Your task to perform on an android device: open app "Grab" (install if not already installed) and enter user name: "interspersion@gmail.com" and password: "aristocrats" Image 0: 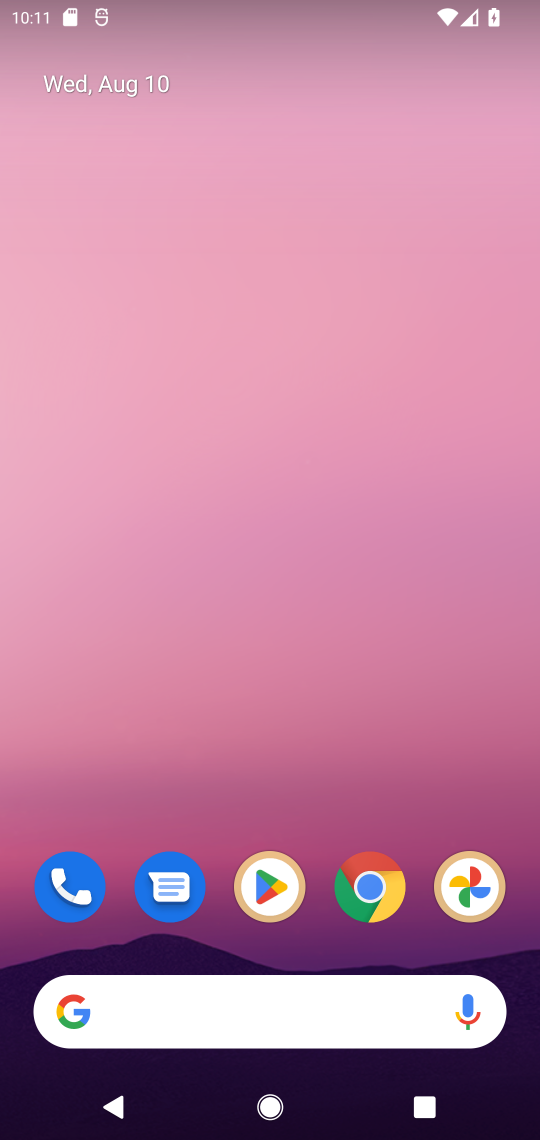
Step 0: click (272, 911)
Your task to perform on an android device: open app "Grab" (install if not already installed) and enter user name: "interspersion@gmail.com" and password: "aristocrats" Image 1: 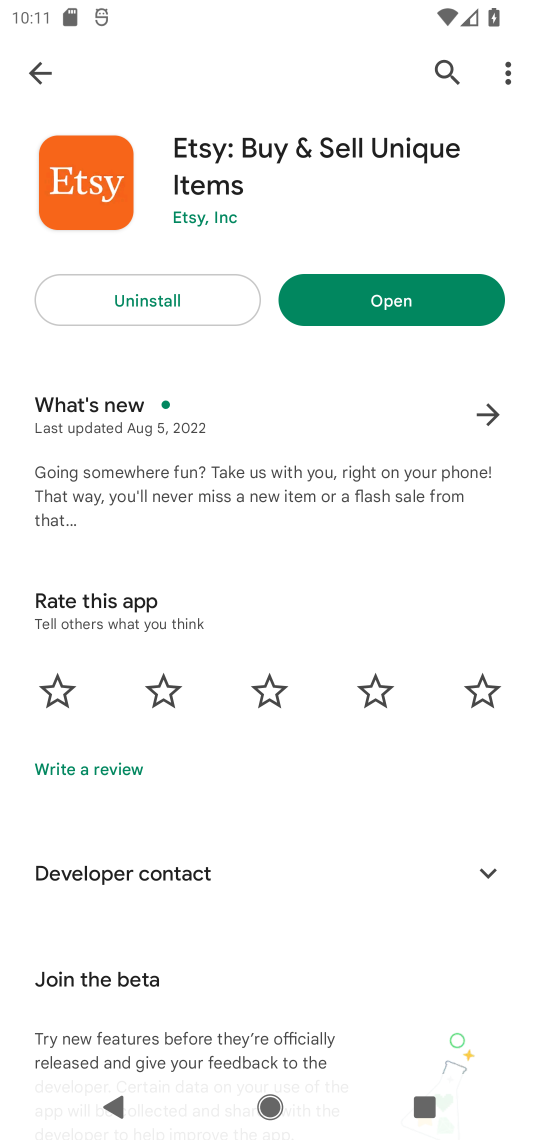
Step 1: click (439, 79)
Your task to perform on an android device: open app "Grab" (install if not already installed) and enter user name: "interspersion@gmail.com" and password: "aristocrats" Image 2: 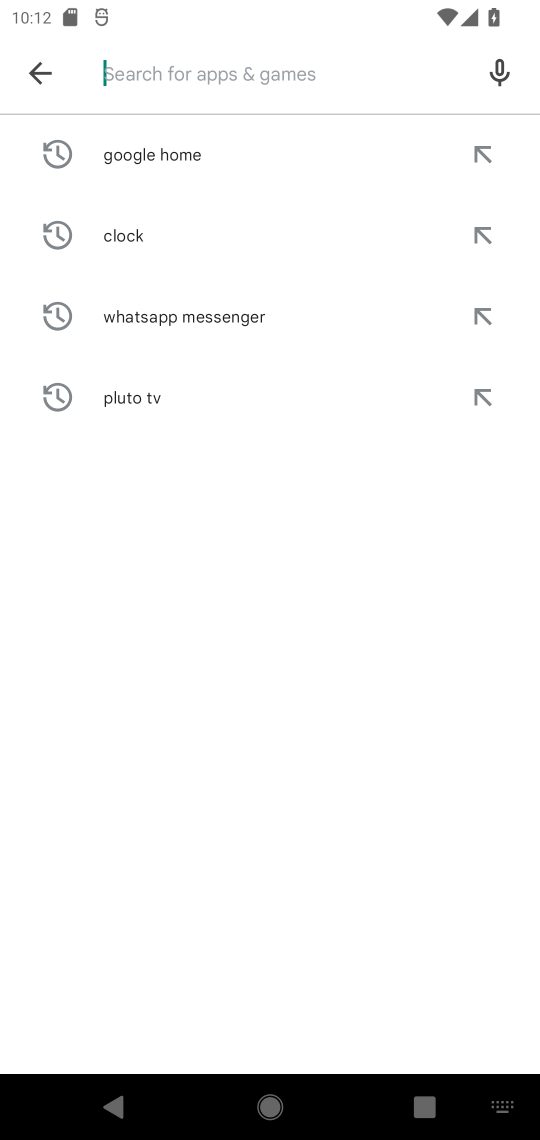
Step 2: type "grab"
Your task to perform on an android device: open app "Grab" (install if not already installed) and enter user name: "interspersion@gmail.com" and password: "aristocrats" Image 3: 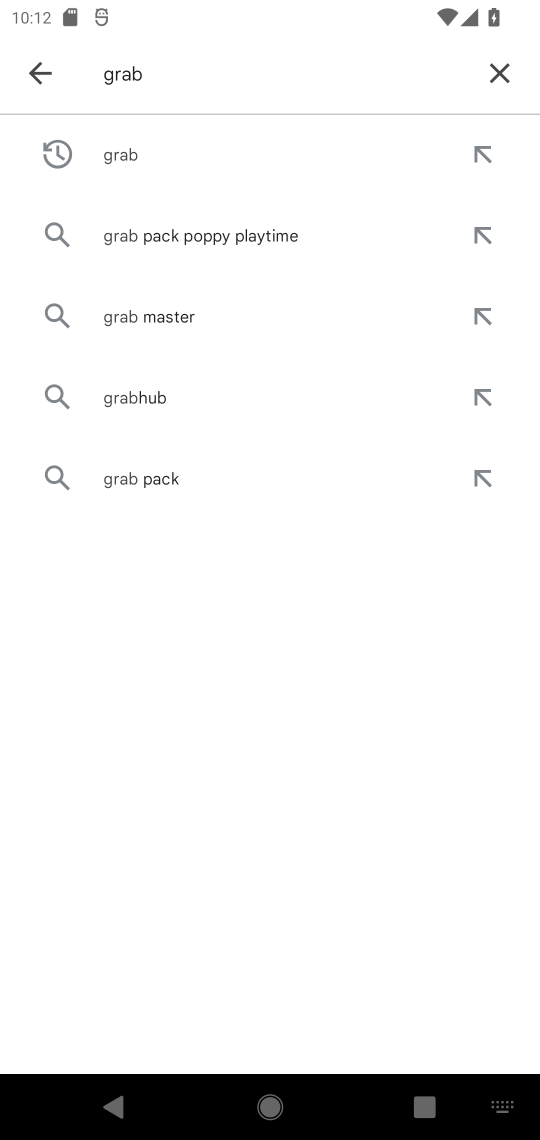
Step 3: click (154, 167)
Your task to perform on an android device: open app "Grab" (install if not already installed) and enter user name: "interspersion@gmail.com" and password: "aristocrats" Image 4: 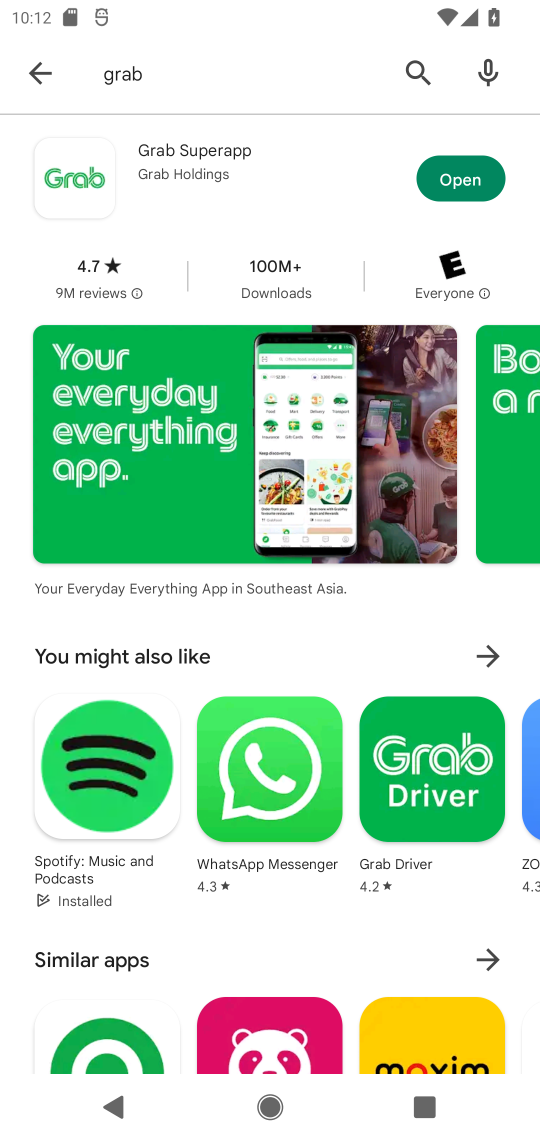
Step 4: click (444, 181)
Your task to perform on an android device: open app "Grab" (install if not already installed) and enter user name: "interspersion@gmail.com" and password: "aristocrats" Image 5: 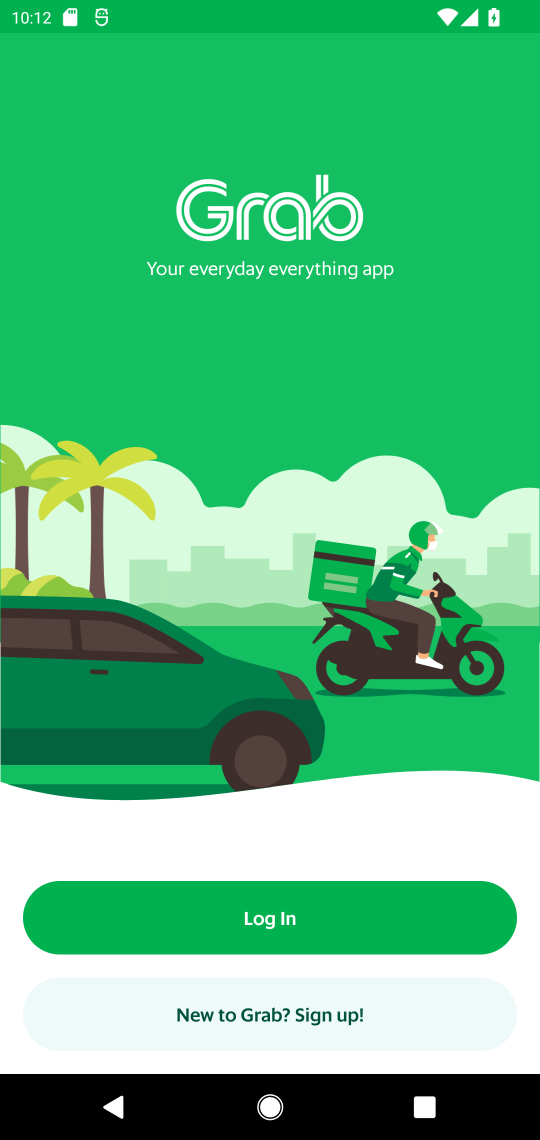
Step 5: click (321, 919)
Your task to perform on an android device: open app "Grab" (install if not already installed) and enter user name: "interspersion@gmail.com" and password: "aristocrats" Image 6: 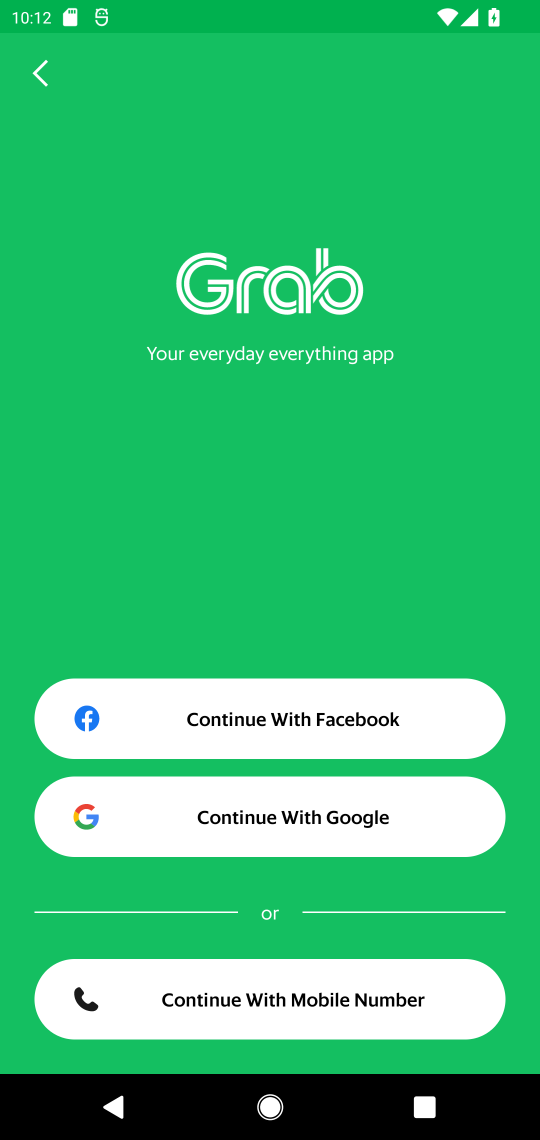
Step 6: click (262, 823)
Your task to perform on an android device: open app "Grab" (install if not already installed) and enter user name: "interspersion@gmail.com" and password: "aristocrats" Image 7: 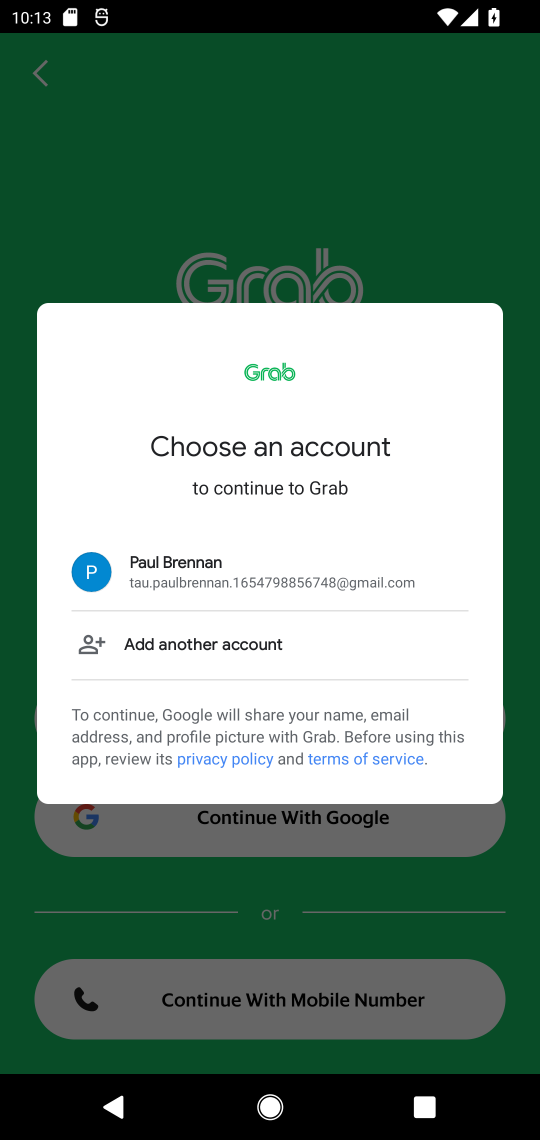
Step 7: task complete